Your task to perform on an android device: Open notification settings Image 0: 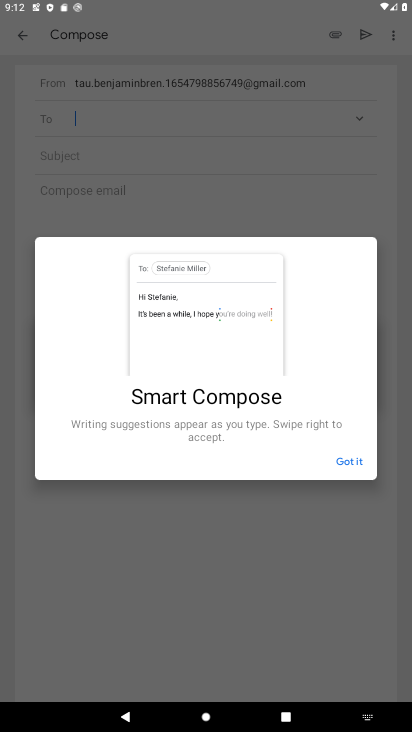
Step 0: press home button
Your task to perform on an android device: Open notification settings Image 1: 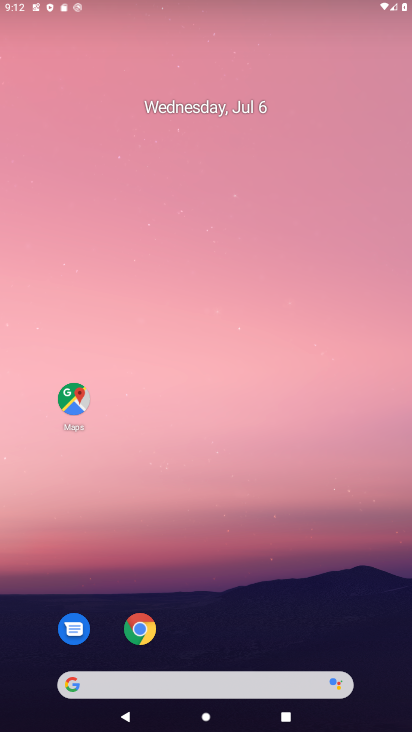
Step 1: drag from (195, 547) to (230, 69)
Your task to perform on an android device: Open notification settings Image 2: 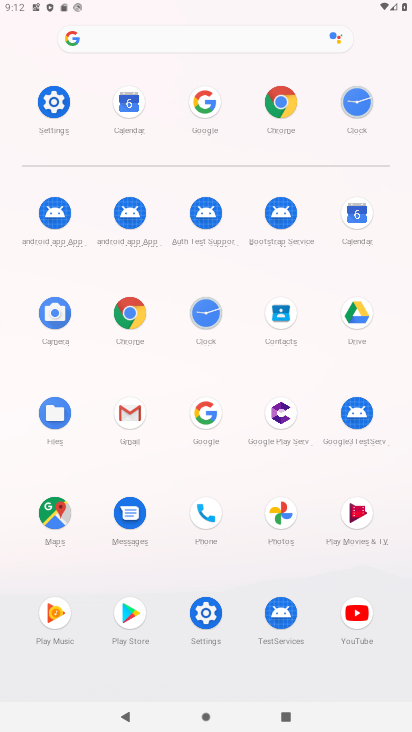
Step 2: click (54, 97)
Your task to perform on an android device: Open notification settings Image 3: 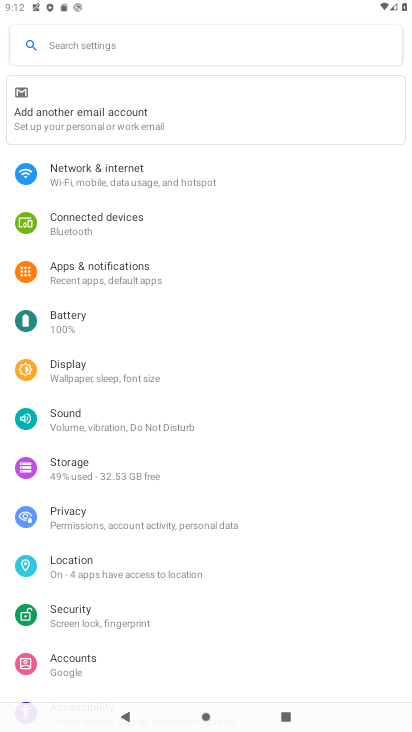
Step 3: drag from (147, 622) to (247, 661)
Your task to perform on an android device: Open notification settings Image 4: 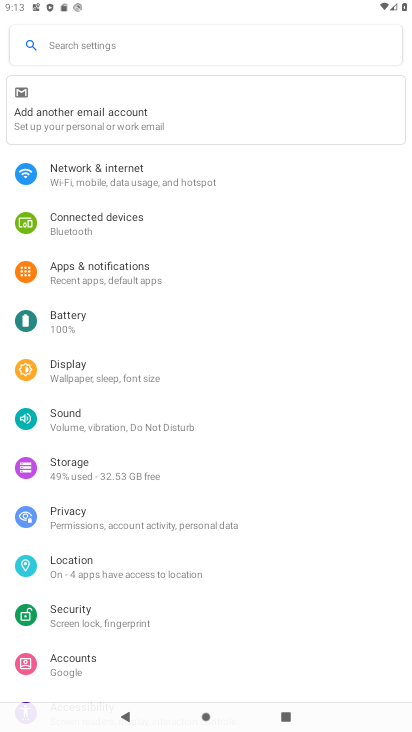
Step 4: click (133, 276)
Your task to perform on an android device: Open notification settings Image 5: 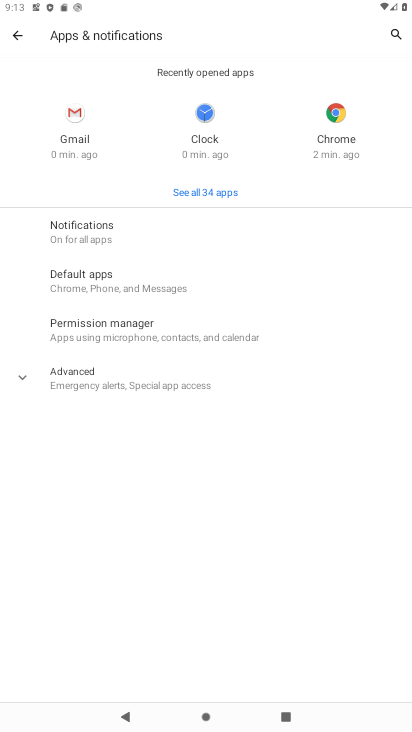
Step 5: click (117, 237)
Your task to perform on an android device: Open notification settings Image 6: 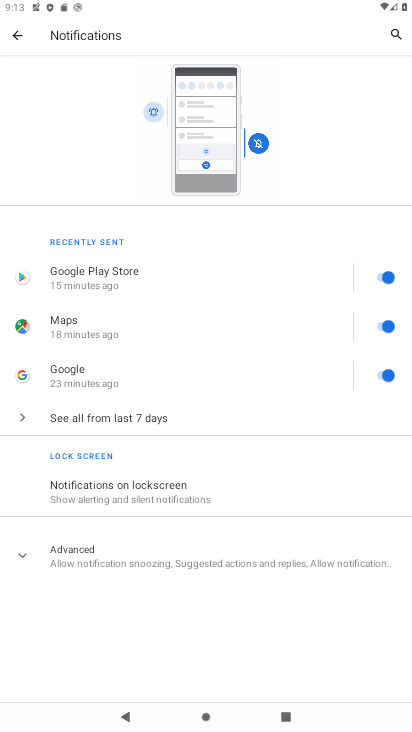
Step 6: task complete